Your task to perform on an android device: Go to CNN.com Image 0: 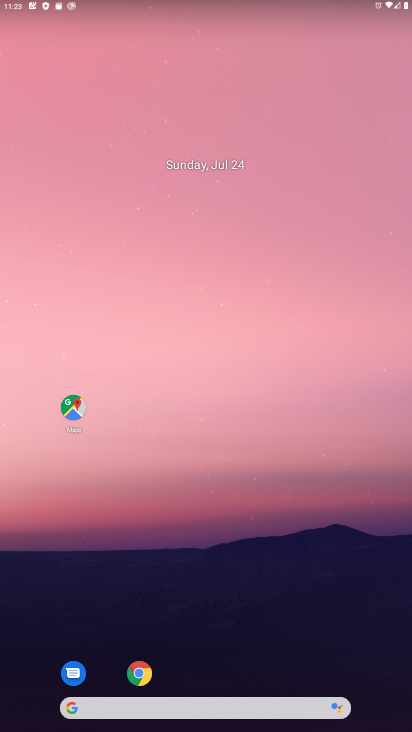
Step 0: drag from (324, 639) to (265, 77)
Your task to perform on an android device: Go to CNN.com Image 1: 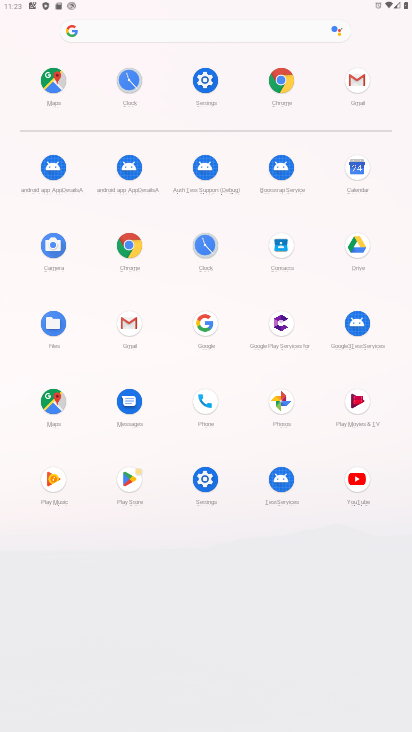
Step 1: click (283, 82)
Your task to perform on an android device: Go to CNN.com Image 2: 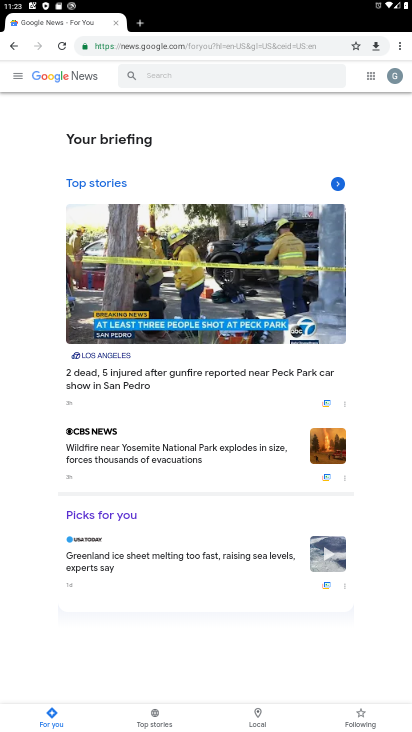
Step 2: click (255, 40)
Your task to perform on an android device: Go to CNN.com Image 3: 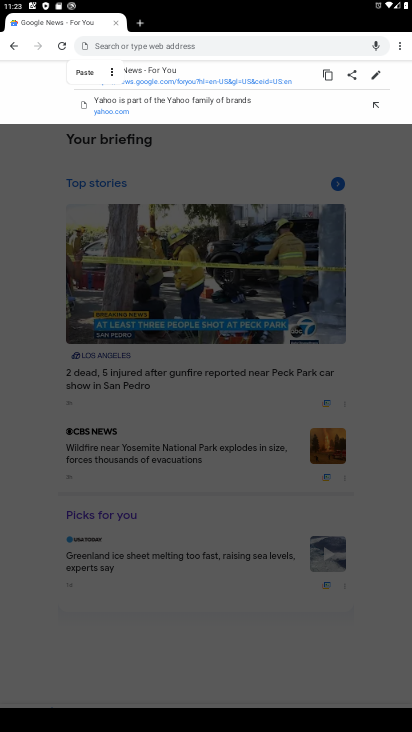
Step 3: type "cnn.com"
Your task to perform on an android device: Go to CNN.com Image 4: 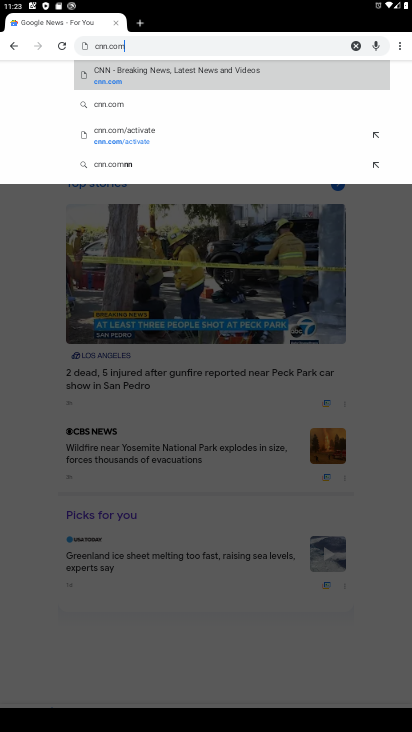
Step 4: click (123, 84)
Your task to perform on an android device: Go to CNN.com Image 5: 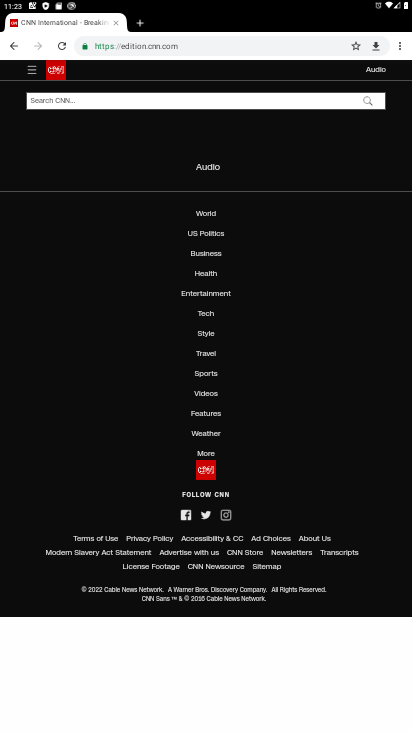
Step 5: task complete